Your task to perform on an android device: manage bookmarks in the chrome app Image 0: 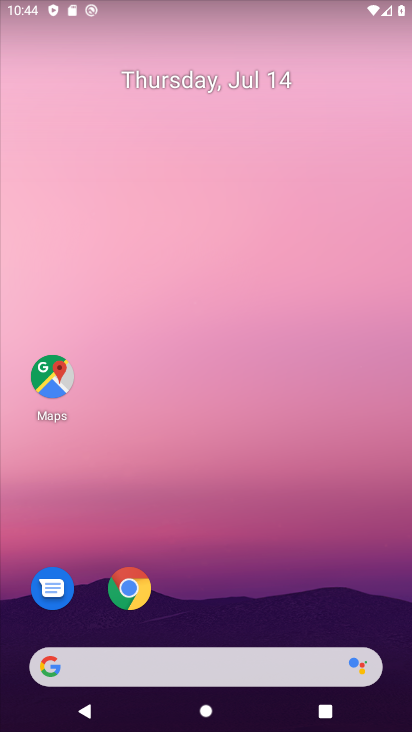
Step 0: click (131, 592)
Your task to perform on an android device: manage bookmarks in the chrome app Image 1: 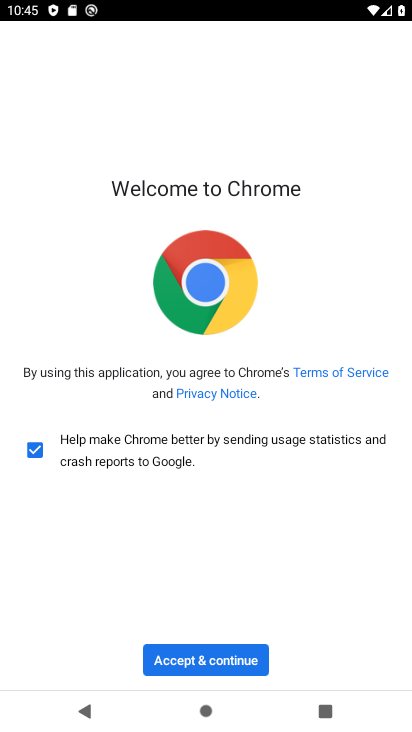
Step 1: click (210, 663)
Your task to perform on an android device: manage bookmarks in the chrome app Image 2: 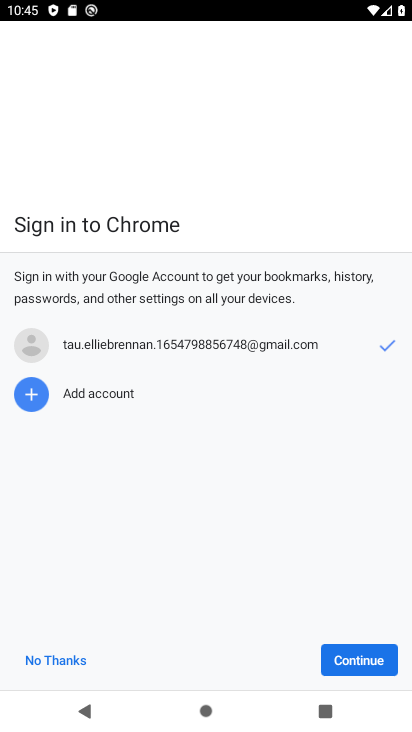
Step 2: click (347, 658)
Your task to perform on an android device: manage bookmarks in the chrome app Image 3: 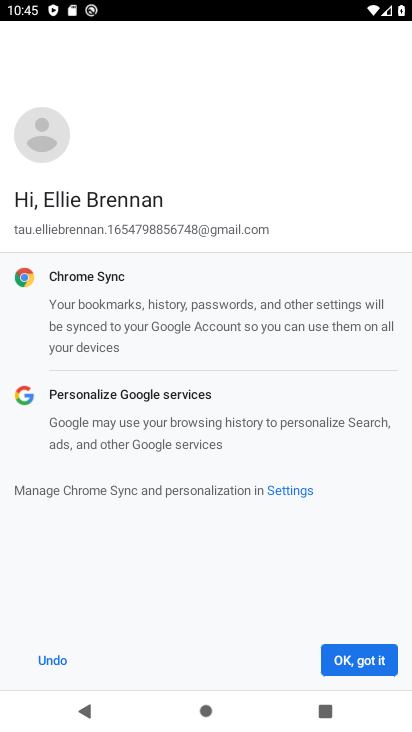
Step 3: click (347, 658)
Your task to perform on an android device: manage bookmarks in the chrome app Image 4: 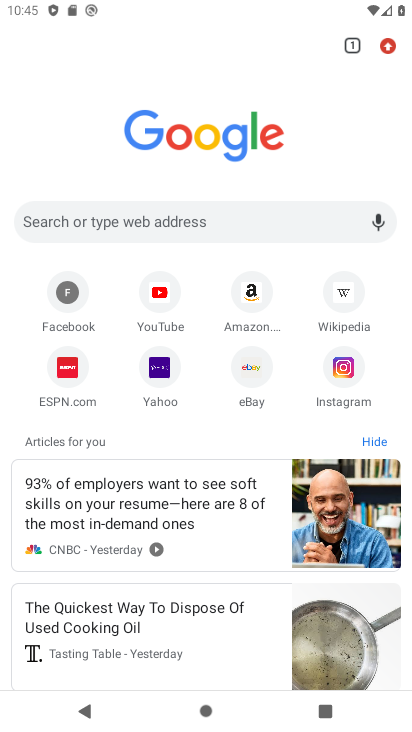
Step 4: click (389, 48)
Your task to perform on an android device: manage bookmarks in the chrome app Image 5: 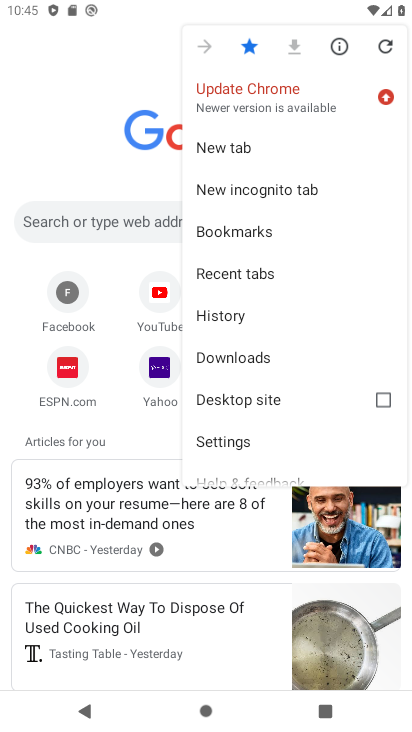
Step 5: click (245, 239)
Your task to perform on an android device: manage bookmarks in the chrome app Image 6: 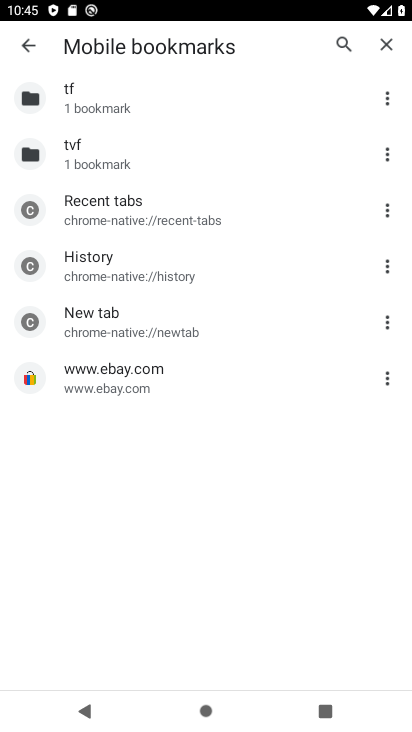
Step 6: click (389, 99)
Your task to perform on an android device: manage bookmarks in the chrome app Image 7: 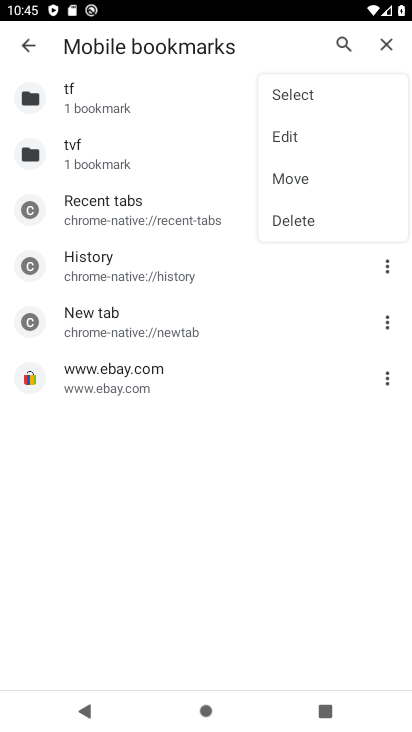
Step 7: click (315, 143)
Your task to perform on an android device: manage bookmarks in the chrome app Image 8: 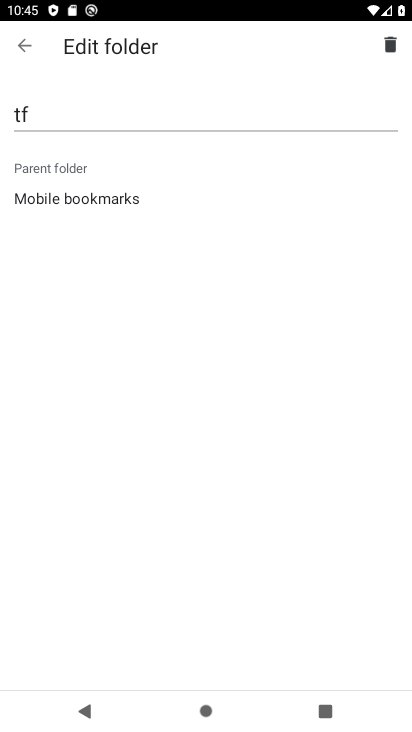
Step 8: click (394, 44)
Your task to perform on an android device: manage bookmarks in the chrome app Image 9: 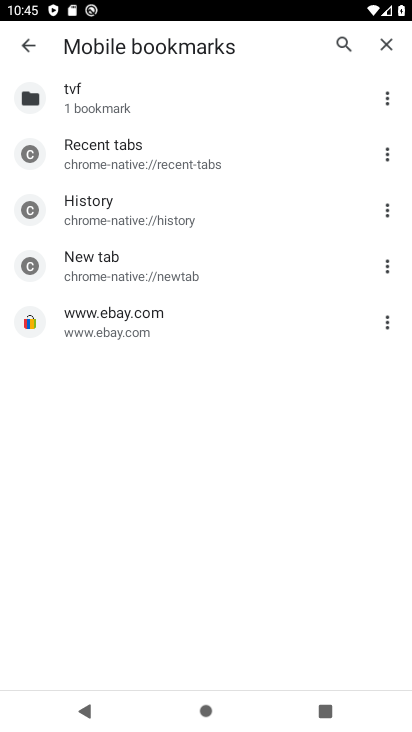
Step 9: task complete